Your task to perform on an android device: Go to Google maps Image 0: 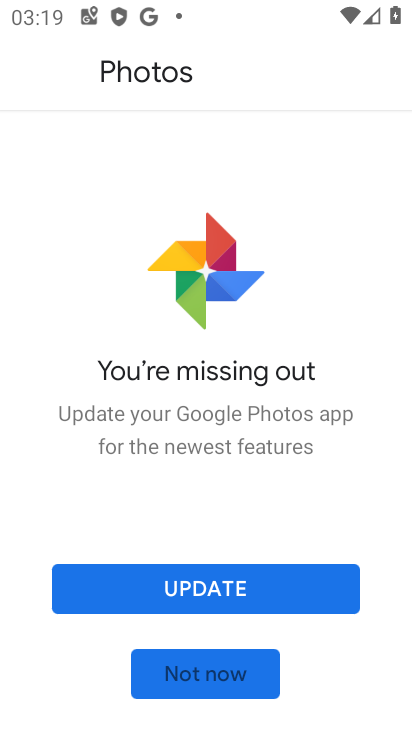
Step 0: press home button
Your task to perform on an android device: Go to Google maps Image 1: 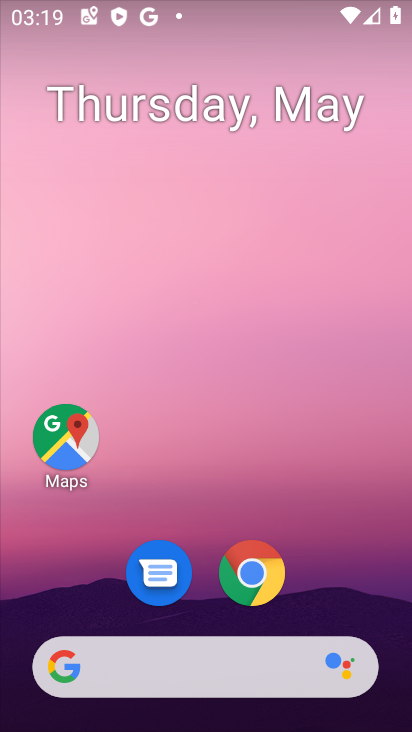
Step 1: click (68, 413)
Your task to perform on an android device: Go to Google maps Image 2: 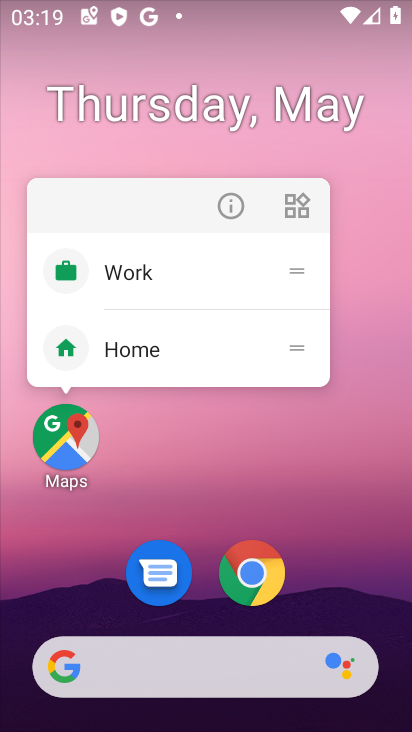
Step 2: click (80, 423)
Your task to perform on an android device: Go to Google maps Image 3: 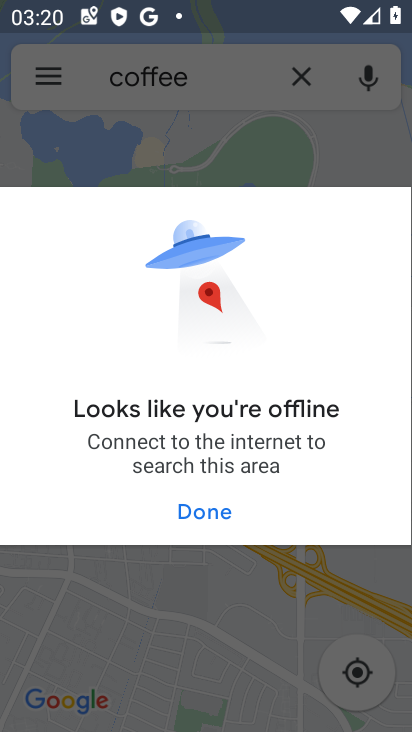
Step 3: task complete